Your task to perform on an android device: snooze an email in the gmail app Image 0: 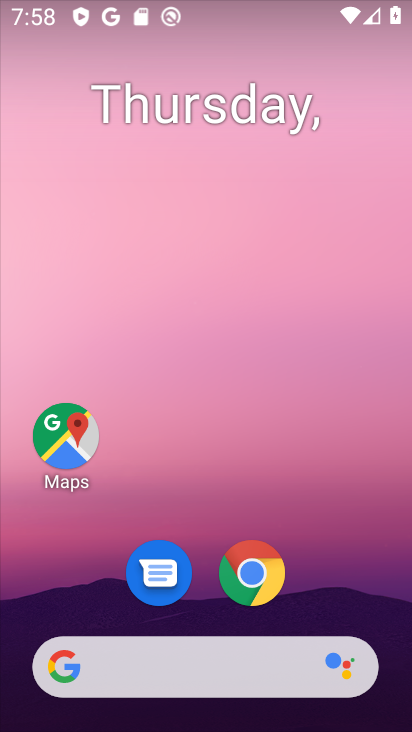
Step 0: drag from (362, 448) to (339, 160)
Your task to perform on an android device: snooze an email in the gmail app Image 1: 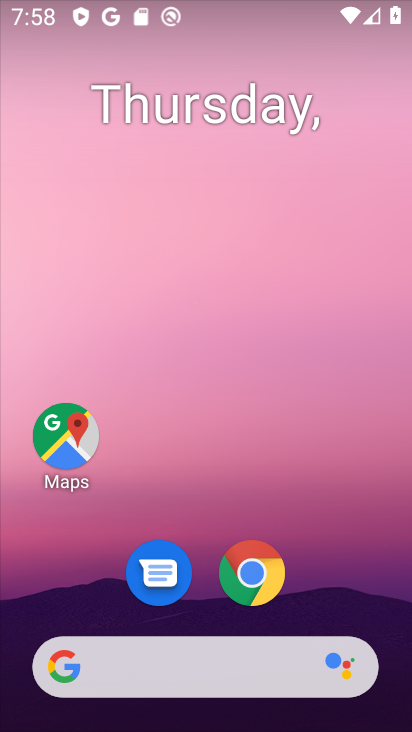
Step 1: drag from (381, 612) to (352, 159)
Your task to perform on an android device: snooze an email in the gmail app Image 2: 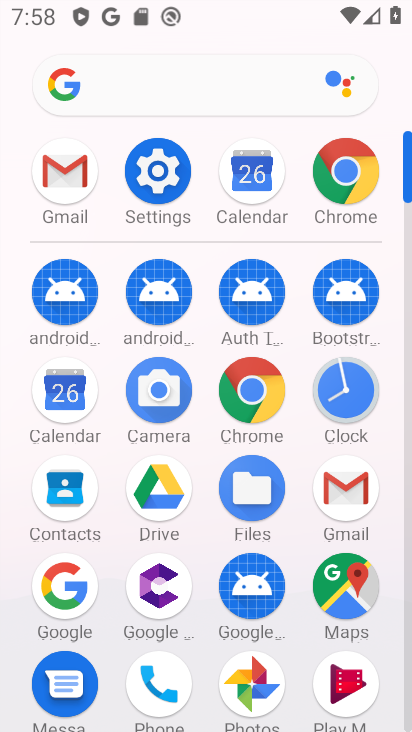
Step 2: click (364, 501)
Your task to perform on an android device: snooze an email in the gmail app Image 3: 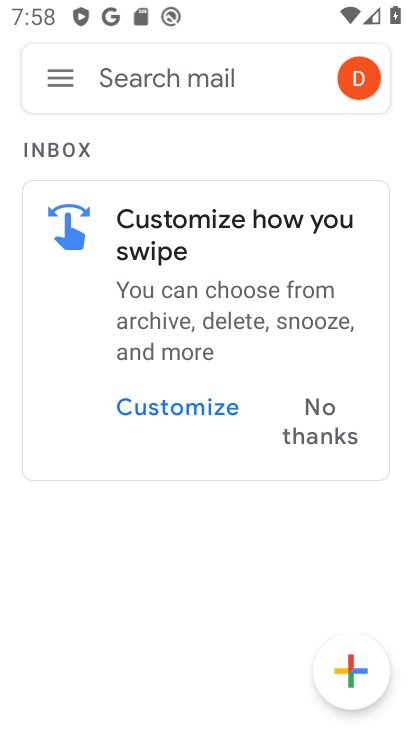
Step 3: click (53, 65)
Your task to perform on an android device: snooze an email in the gmail app Image 4: 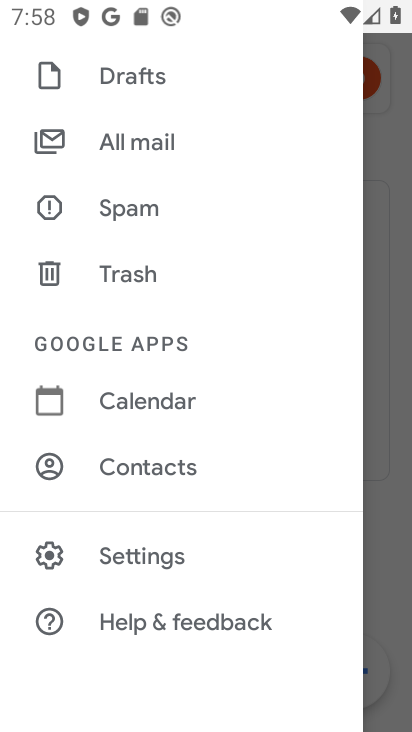
Step 4: drag from (212, 229) to (197, 421)
Your task to perform on an android device: snooze an email in the gmail app Image 5: 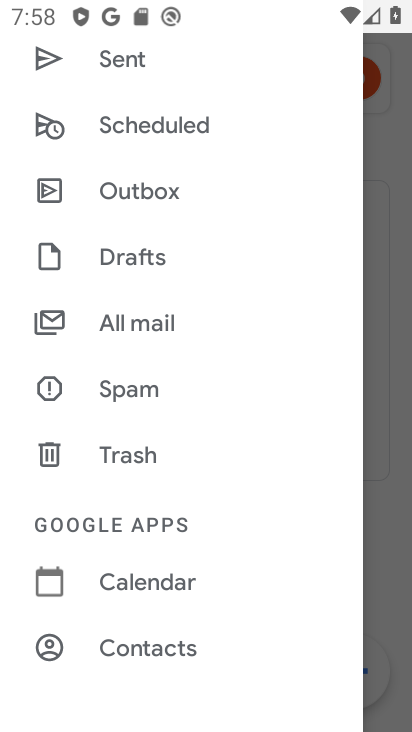
Step 5: click (162, 329)
Your task to perform on an android device: snooze an email in the gmail app Image 6: 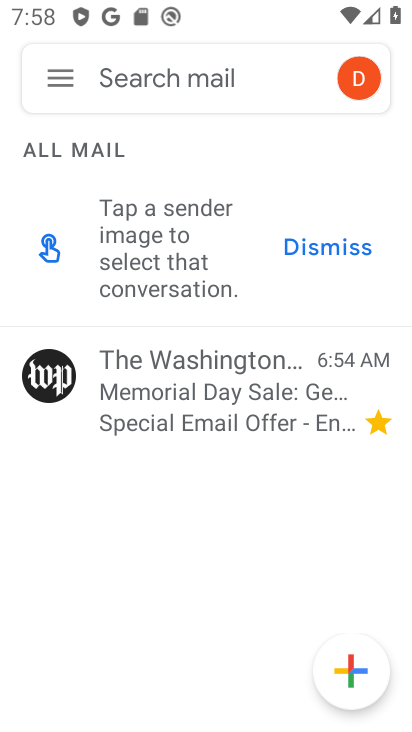
Step 6: click (171, 384)
Your task to perform on an android device: snooze an email in the gmail app Image 7: 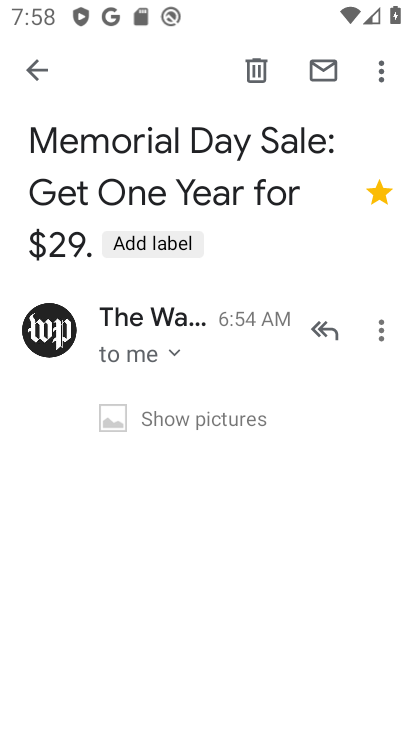
Step 7: click (391, 76)
Your task to perform on an android device: snooze an email in the gmail app Image 8: 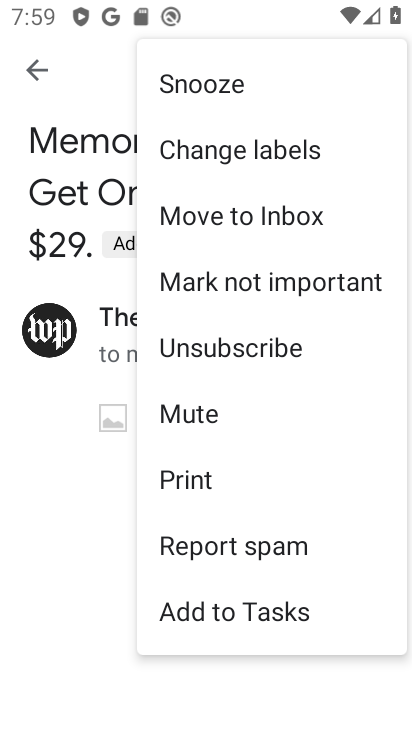
Step 8: click (190, 91)
Your task to perform on an android device: snooze an email in the gmail app Image 9: 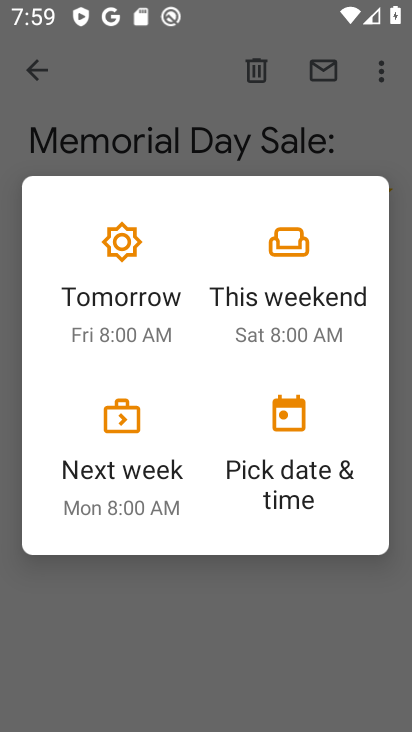
Step 9: click (157, 304)
Your task to perform on an android device: snooze an email in the gmail app Image 10: 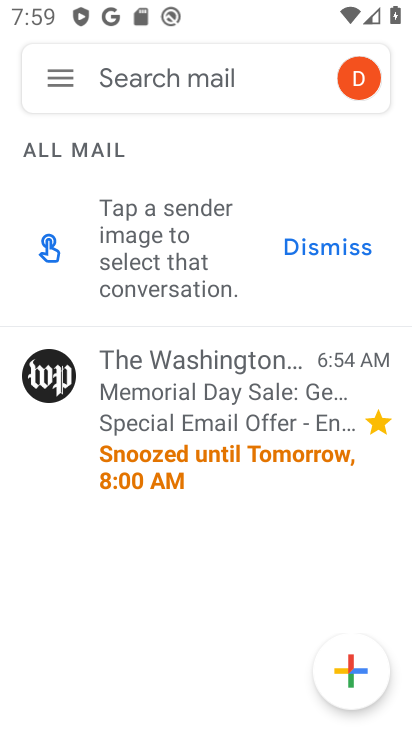
Step 10: task complete